Your task to perform on an android device: turn on bluetooth scan Image 0: 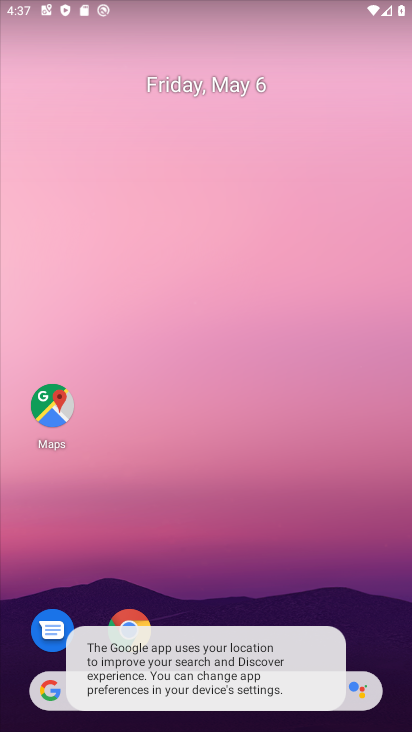
Step 0: drag from (358, 644) to (341, 35)
Your task to perform on an android device: turn on bluetooth scan Image 1: 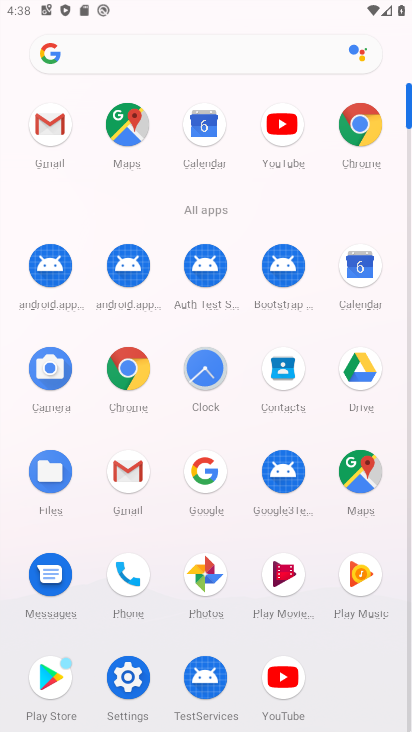
Step 1: click (124, 684)
Your task to perform on an android device: turn on bluetooth scan Image 2: 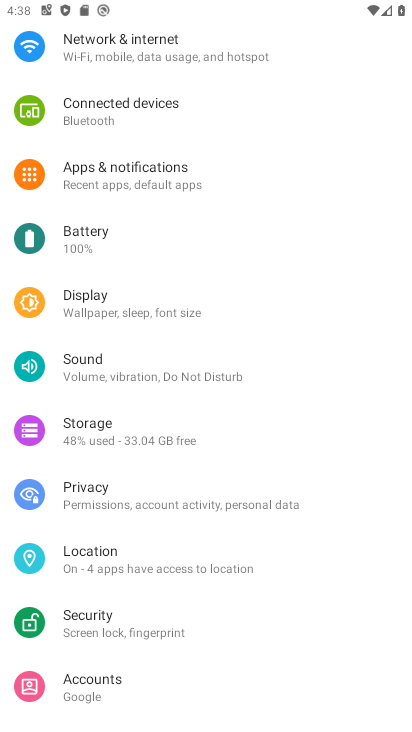
Step 2: click (113, 554)
Your task to perform on an android device: turn on bluetooth scan Image 3: 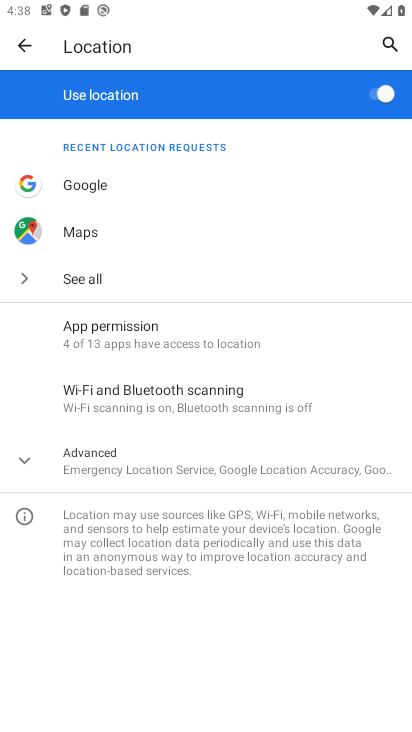
Step 3: click (170, 400)
Your task to perform on an android device: turn on bluetooth scan Image 4: 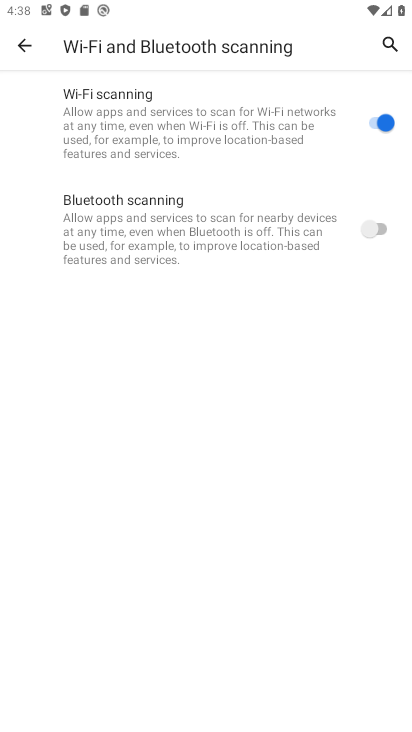
Step 4: click (366, 231)
Your task to perform on an android device: turn on bluetooth scan Image 5: 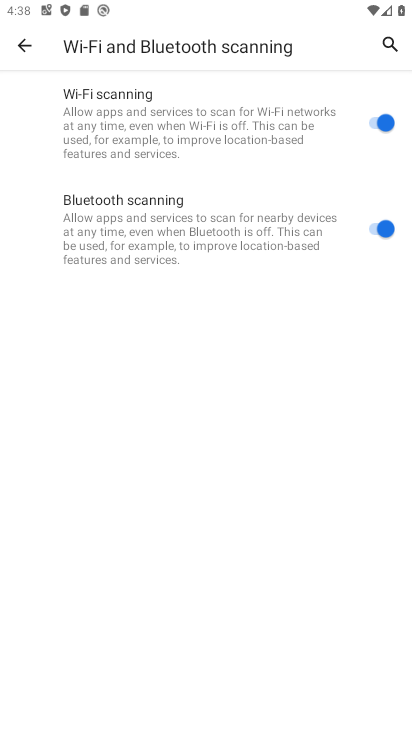
Step 5: task complete